Your task to perform on an android device: What's the weather? Image 0: 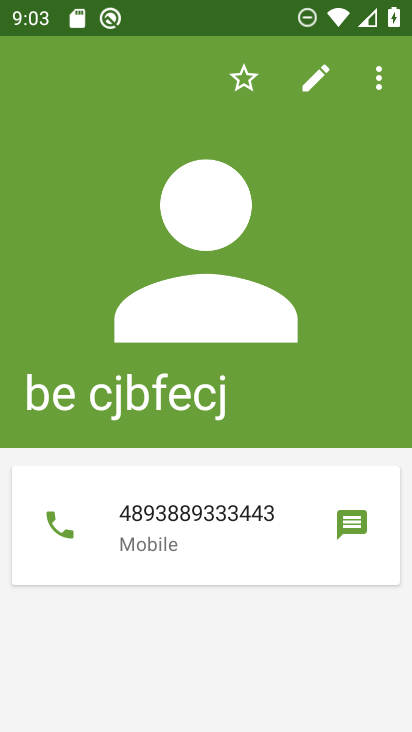
Step 0: press back button
Your task to perform on an android device: What's the weather? Image 1: 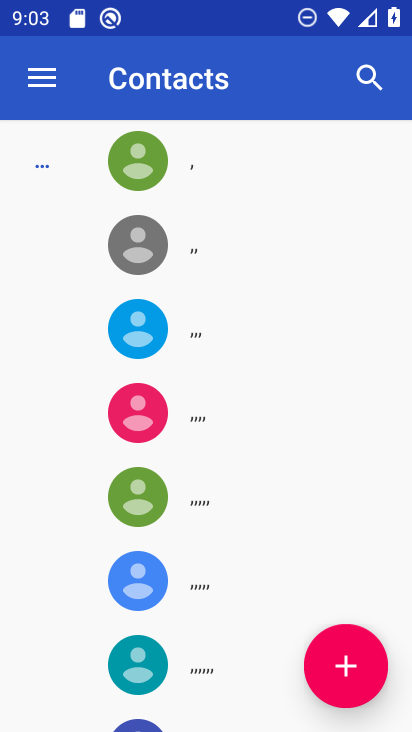
Step 1: press home button
Your task to perform on an android device: What's the weather? Image 2: 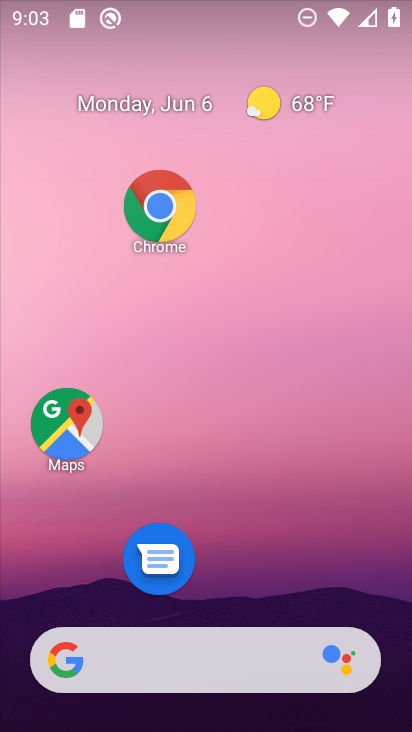
Step 2: drag from (27, 310) to (375, 330)
Your task to perform on an android device: What's the weather? Image 3: 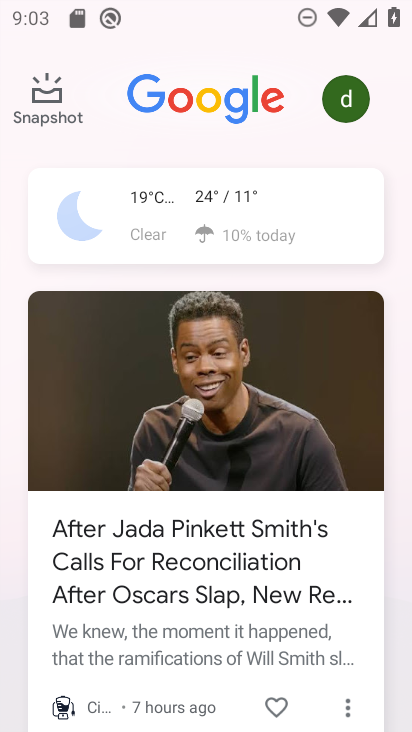
Step 3: click (89, 231)
Your task to perform on an android device: What's the weather? Image 4: 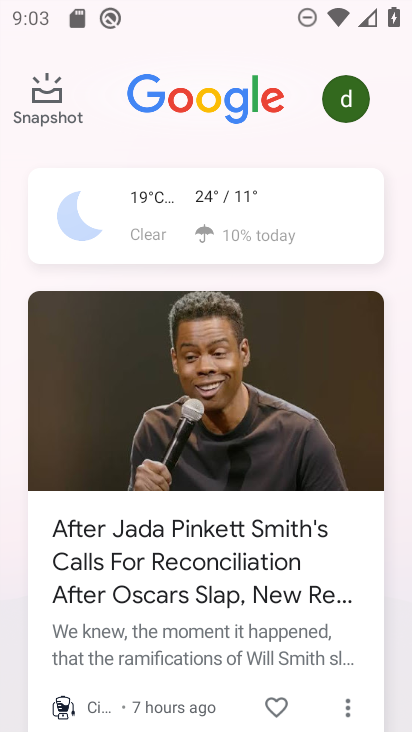
Step 4: click (105, 237)
Your task to perform on an android device: What's the weather? Image 5: 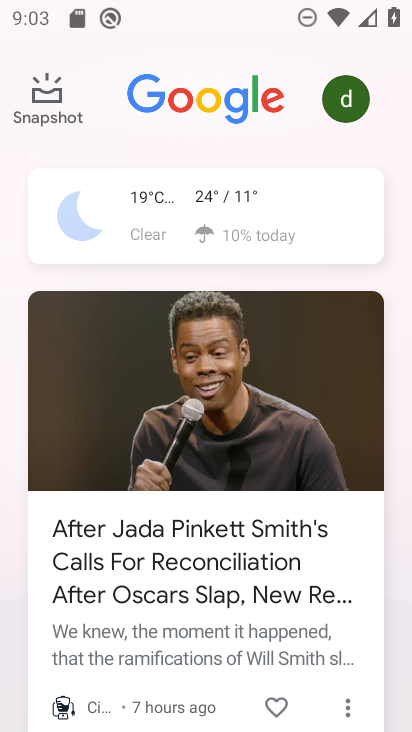
Step 5: click (107, 241)
Your task to perform on an android device: What's the weather? Image 6: 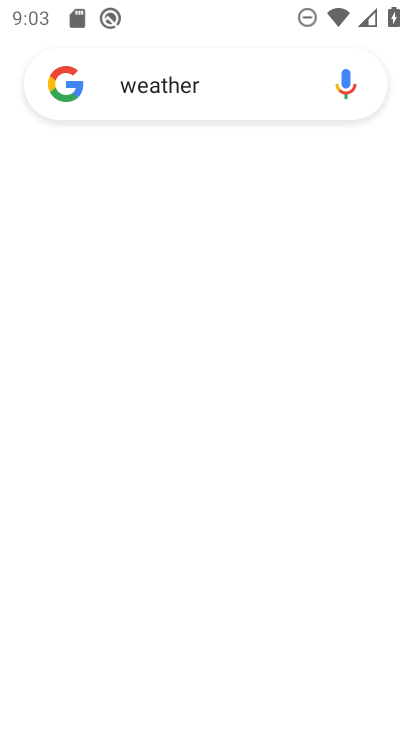
Step 6: click (141, 256)
Your task to perform on an android device: What's the weather? Image 7: 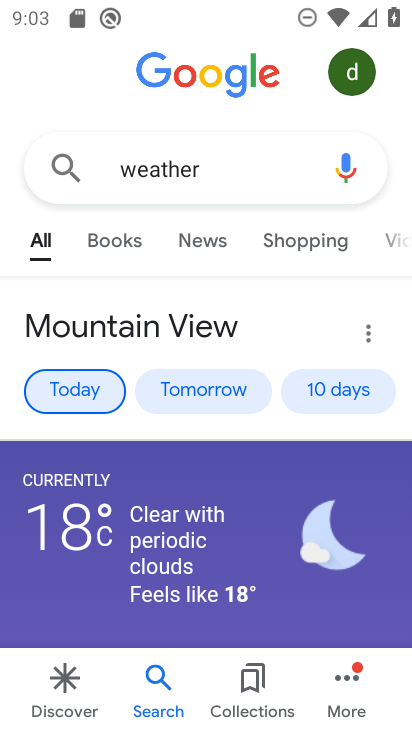
Step 7: task complete